Your task to perform on an android device: Add beats solo 3 to the cart on walmart.com, then select checkout. Image 0: 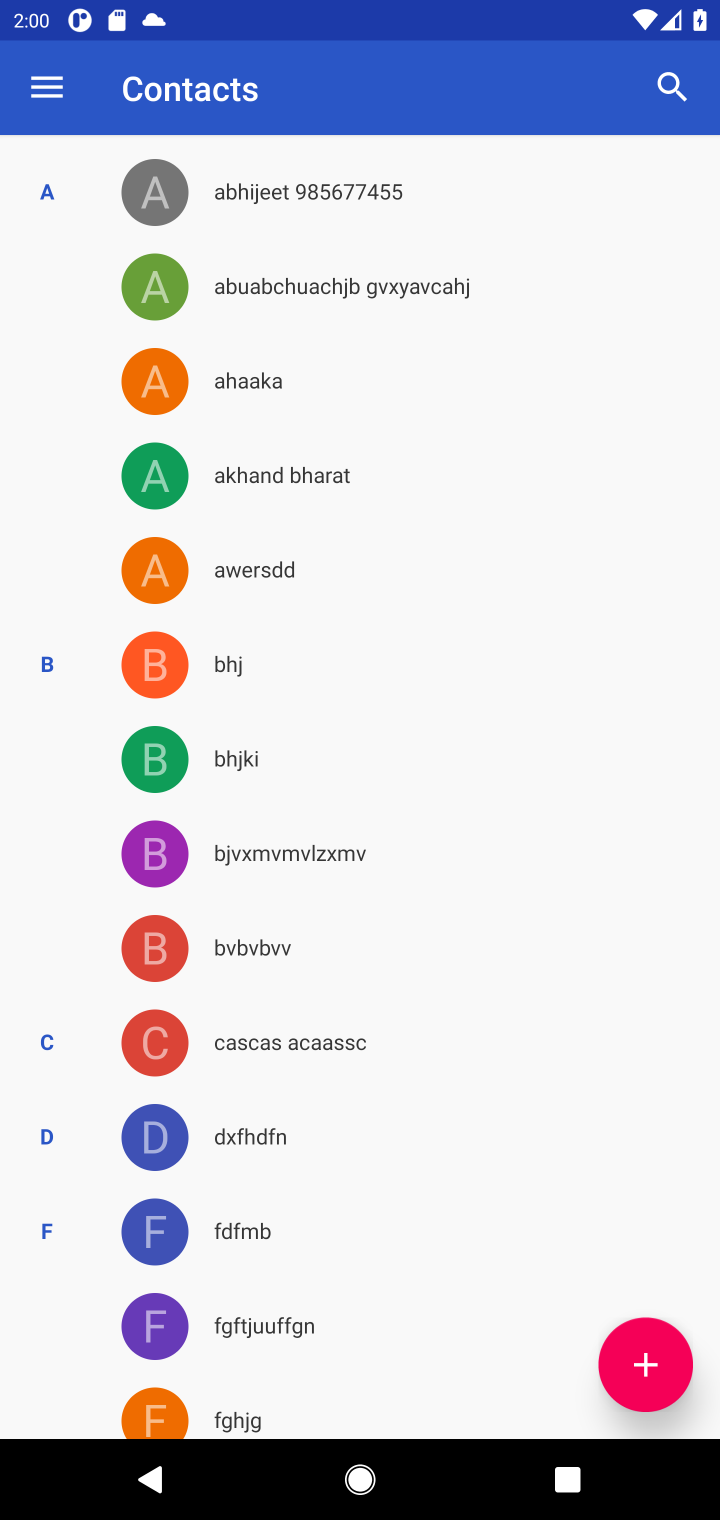
Step 0: press home button
Your task to perform on an android device: Add beats solo 3 to the cart on walmart.com, then select checkout. Image 1: 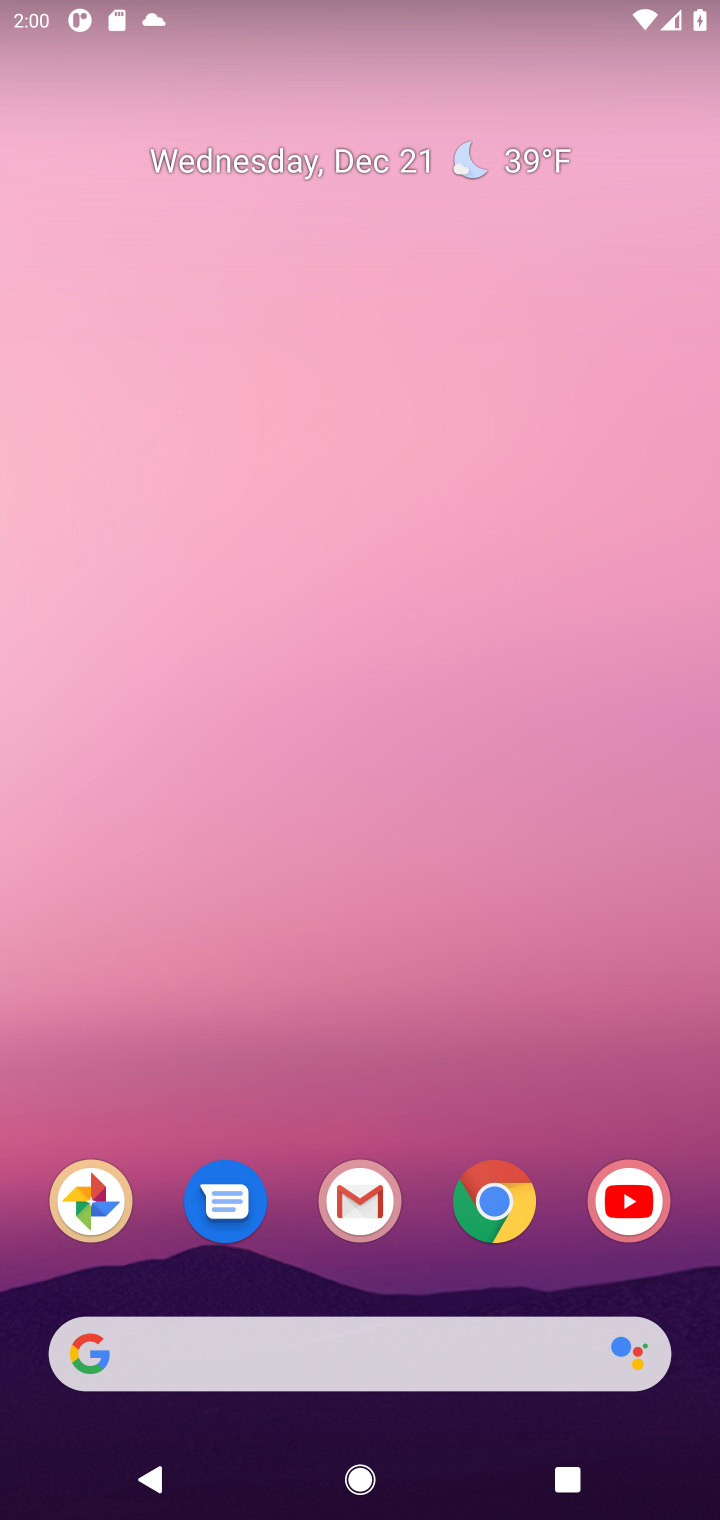
Step 1: click (492, 1213)
Your task to perform on an android device: Add beats solo 3 to the cart on walmart.com, then select checkout. Image 2: 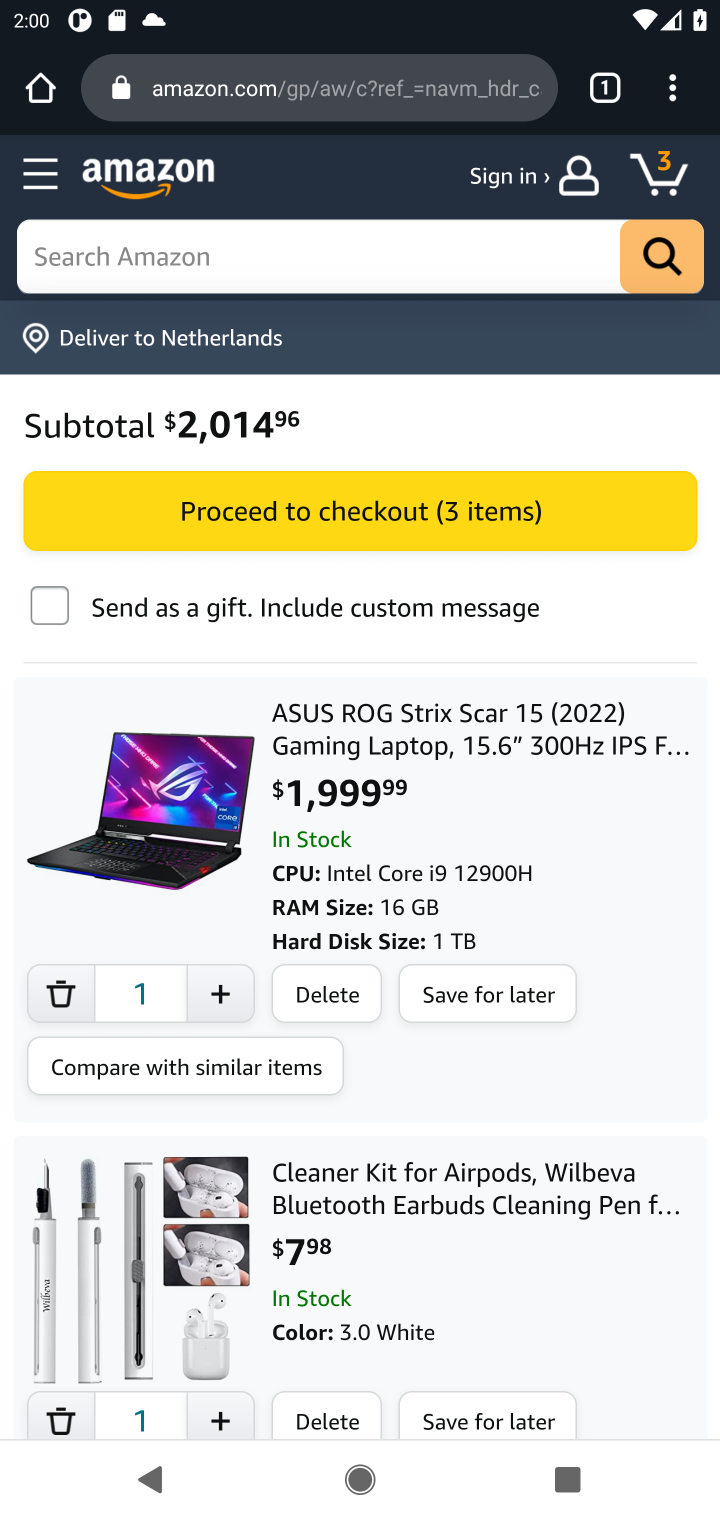
Step 2: click (270, 97)
Your task to perform on an android device: Add beats solo 3 to the cart on walmart.com, then select checkout. Image 3: 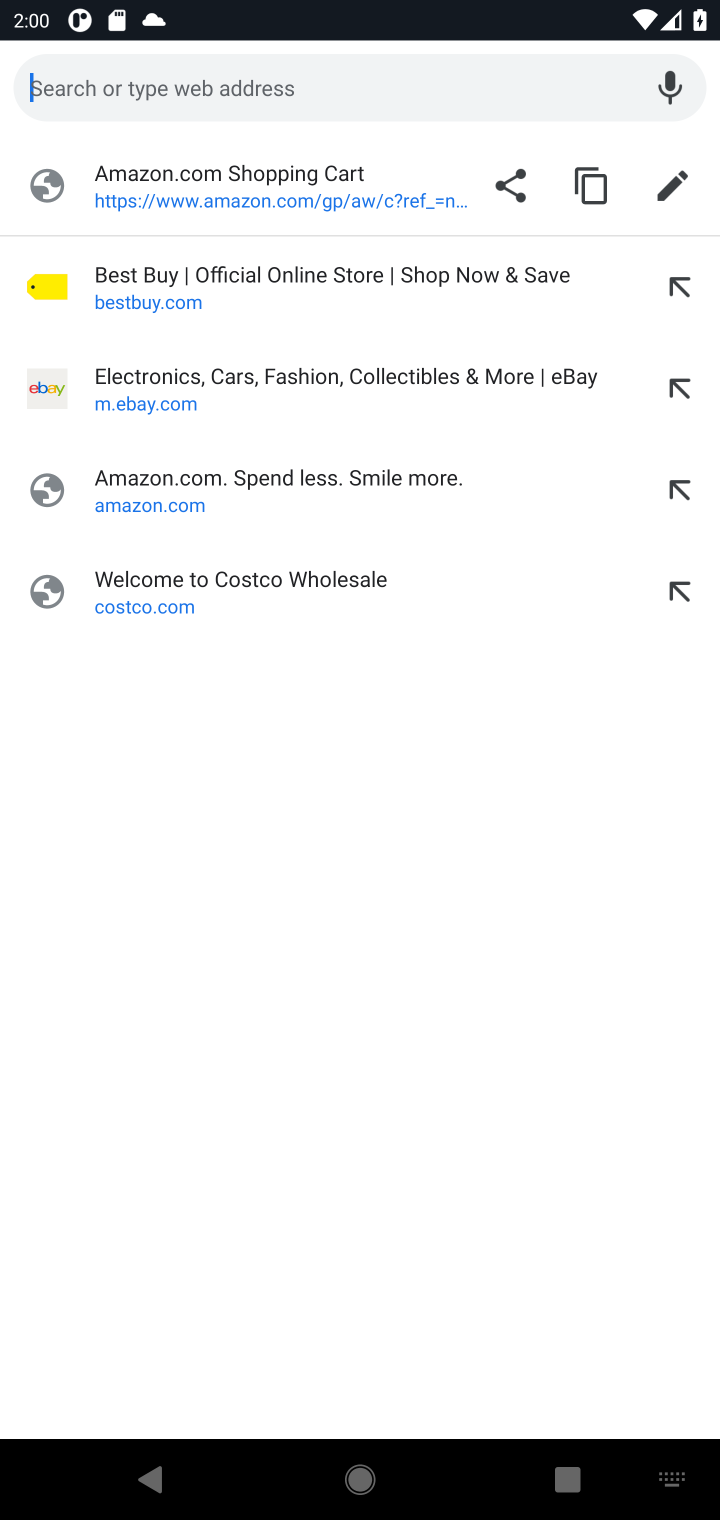
Step 3: type "walmart.com"
Your task to perform on an android device: Add beats solo 3 to the cart on walmart.com, then select checkout. Image 4: 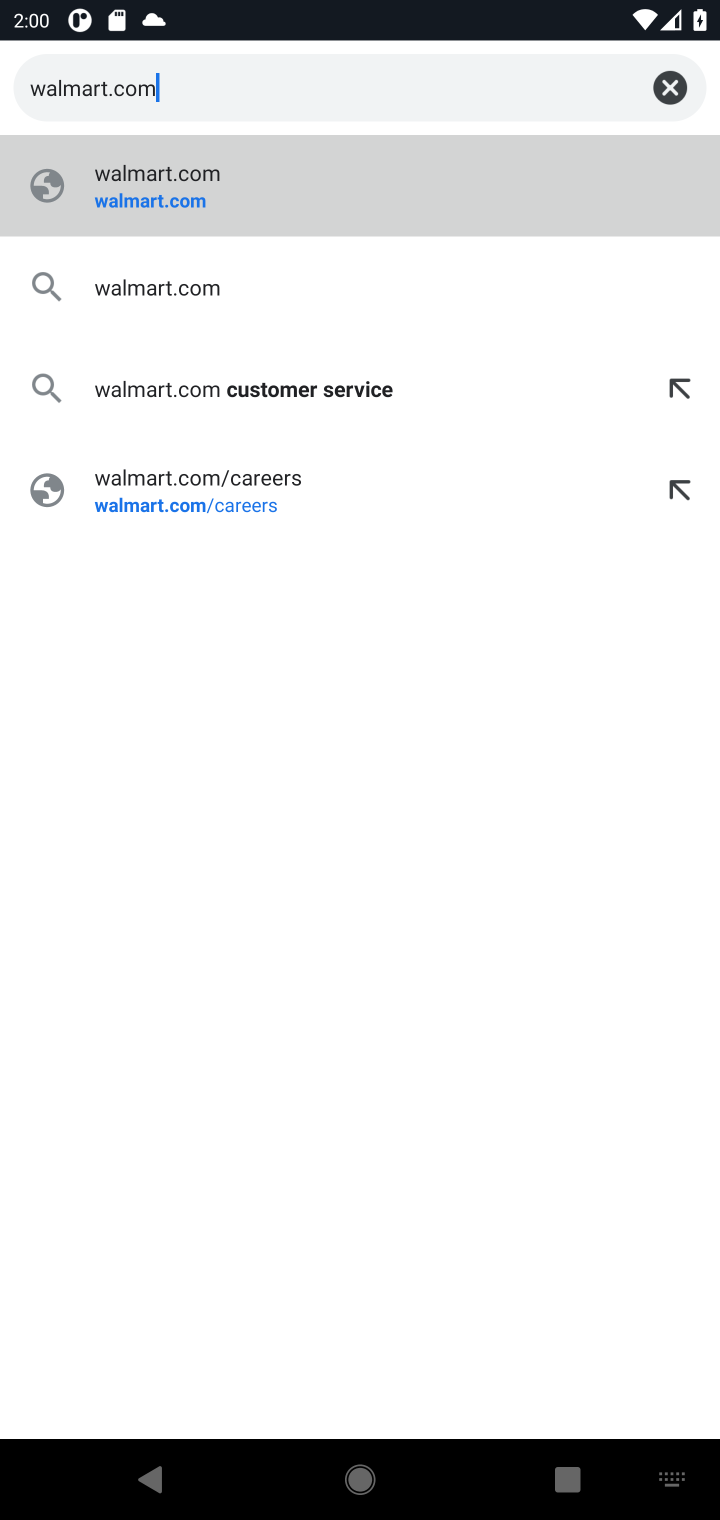
Step 4: click (145, 292)
Your task to perform on an android device: Add beats solo 3 to the cart on walmart.com, then select checkout. Image 5: 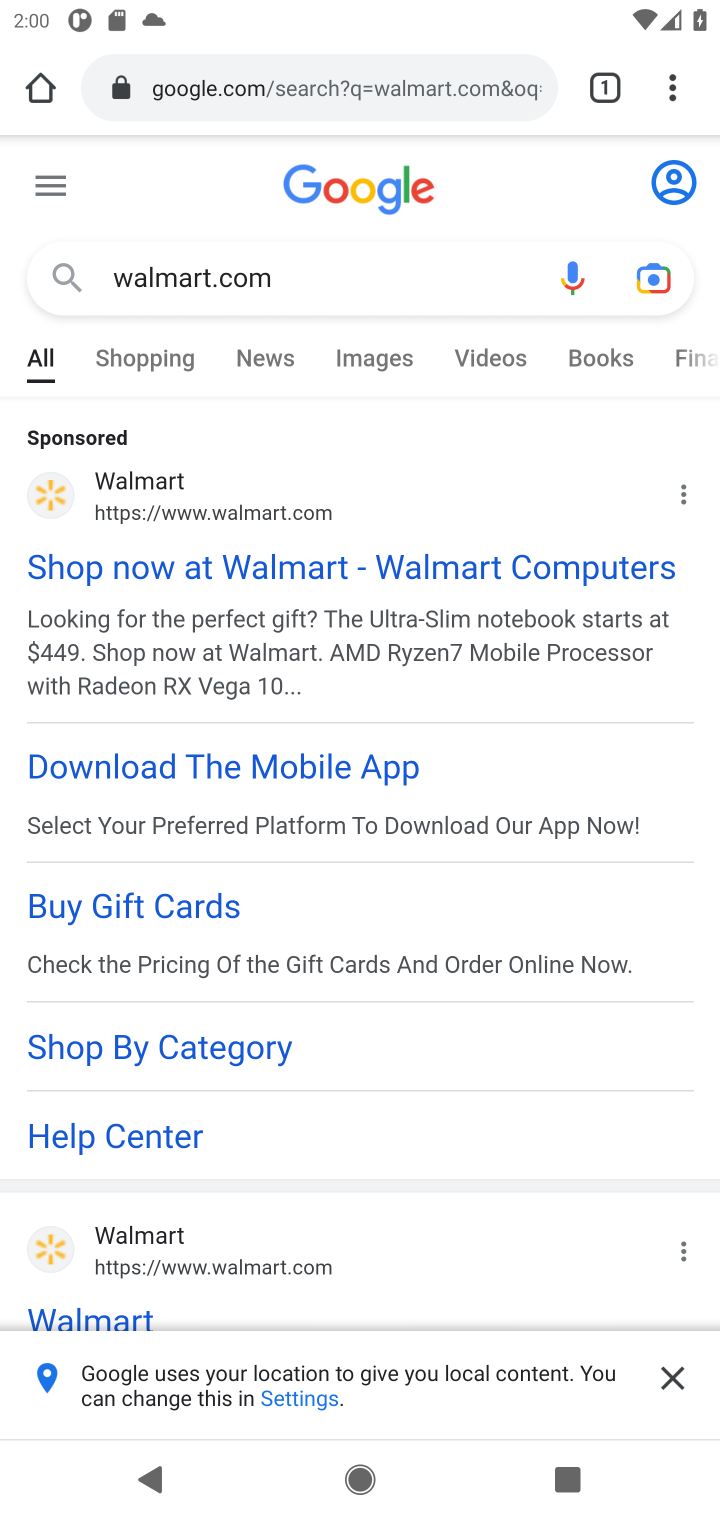
Step 5: drag from (237, 975) to (256, 468)
Your task to perform on an android device: Add beats solo 3 to the cart on walmart.com, then select checkout. Image 6: 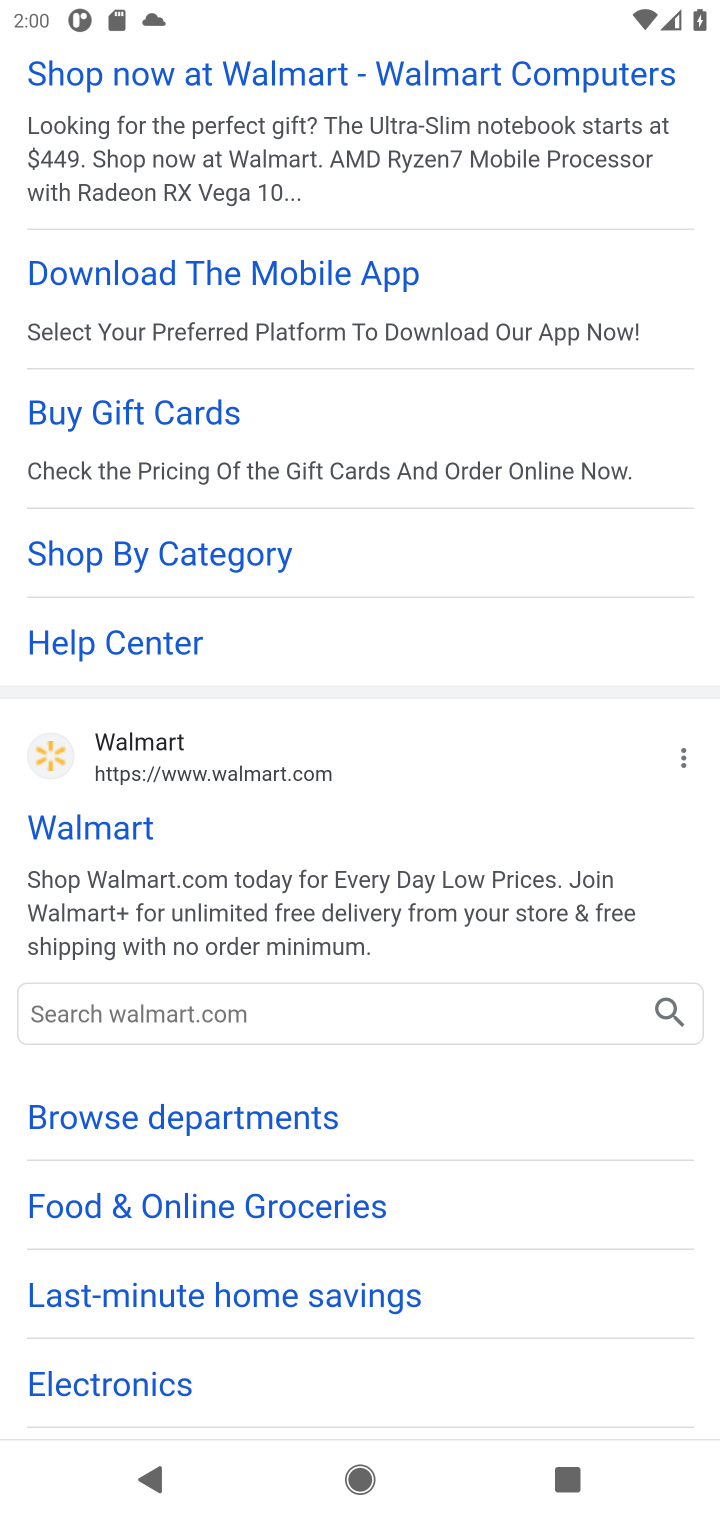
Step 6: click (138, 778)
Your task to perform on an android device: Add beats solo 3 to the cart on walmart.com, then select checkout. Image 7: 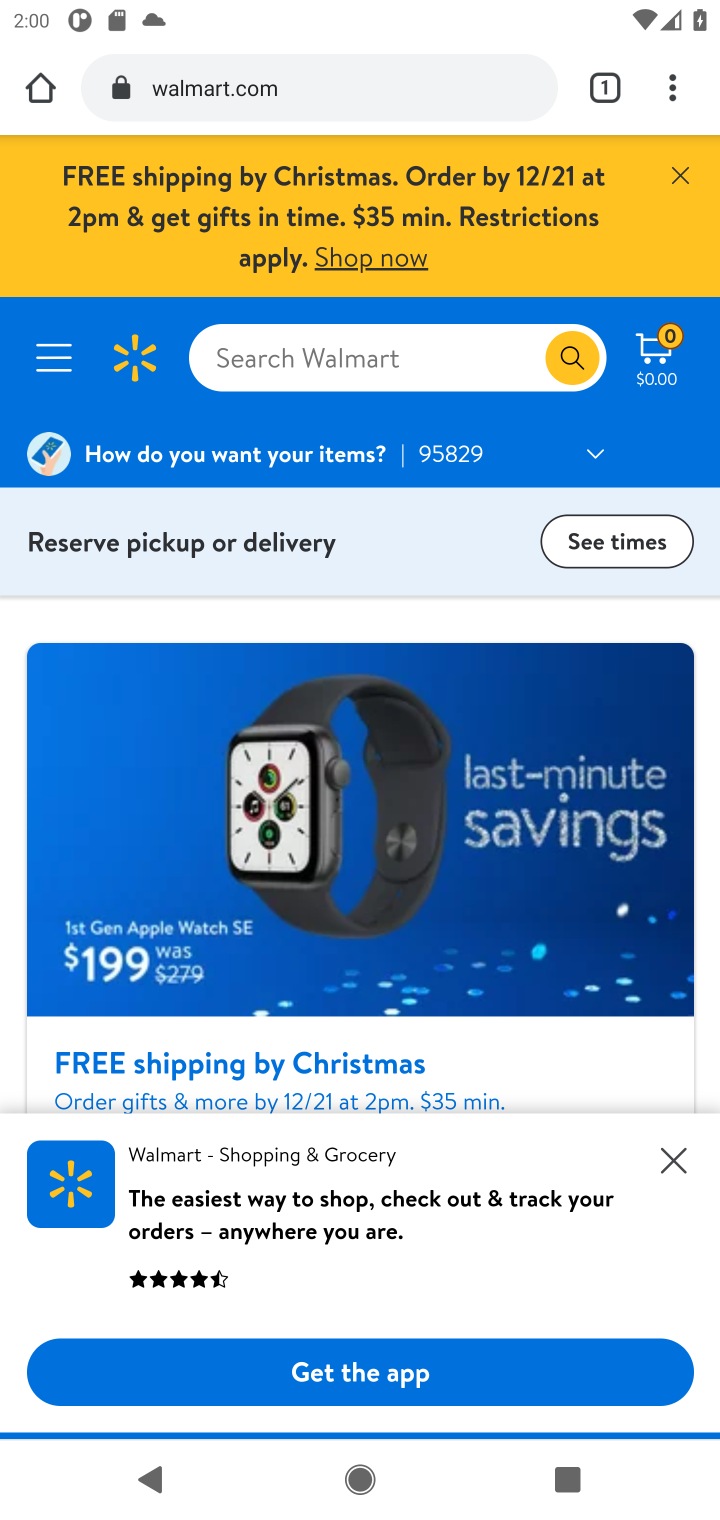
Step 7: click (328, 359)
Your task to perform on an android device: Add beats solo 3 to the cart on walmart.com, then select checkout. Image 8: 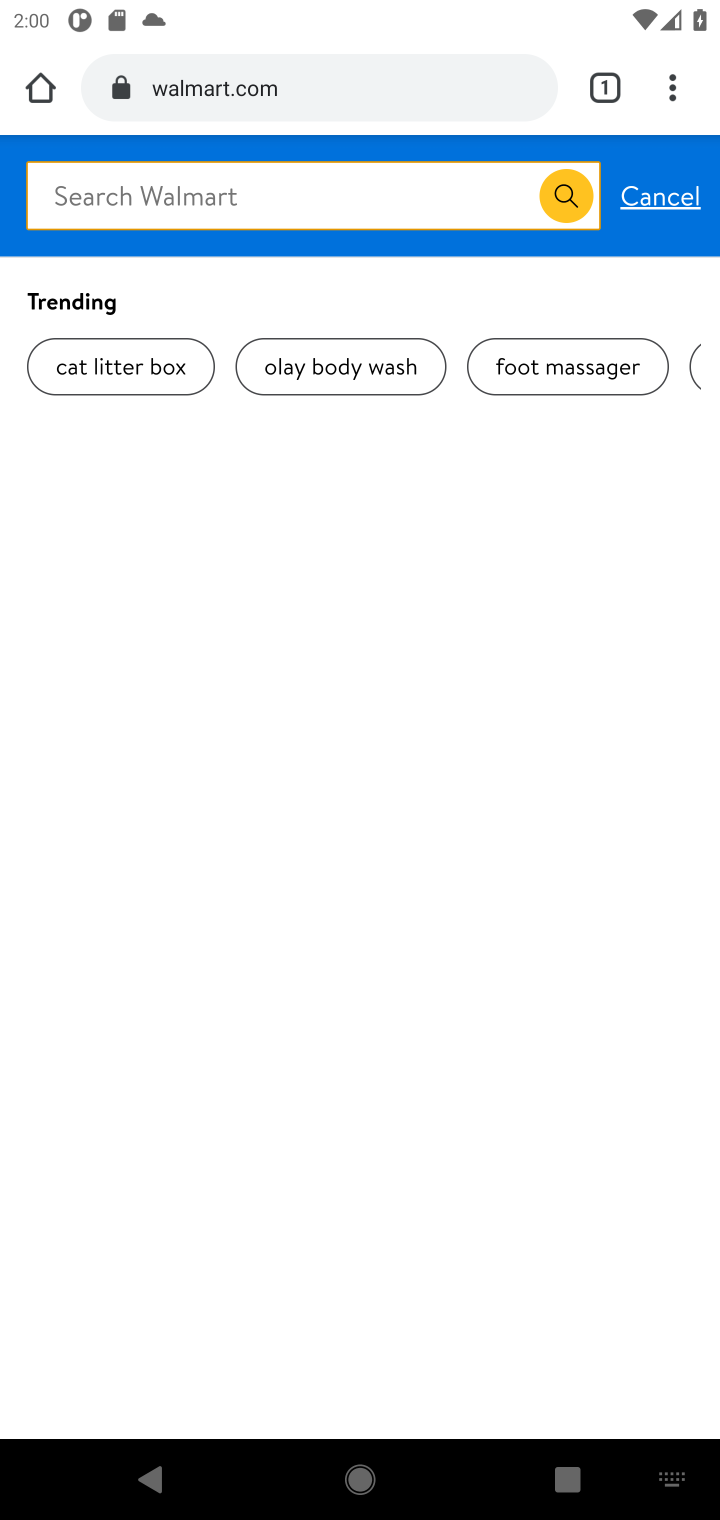
Step 8: type "beats solo 3 "
Your task to perform on an android device: Add beats solo 3 to the cart on walmart.com, then select checkout. Image 9: 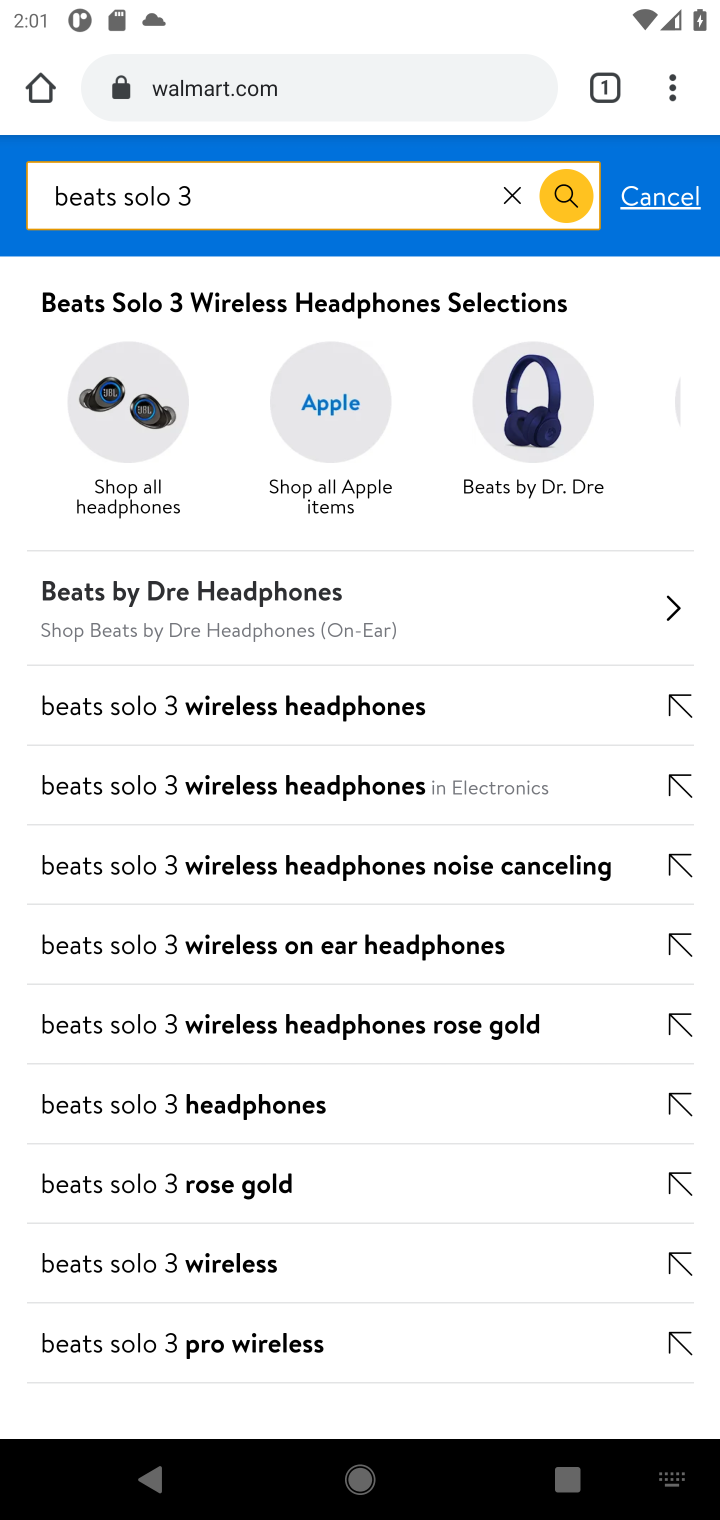
Step 9: click (574, 202)
Your task to perform on an android device: Add beats solo 3 to the cart on walmart.com, then select checkout. Image 10: 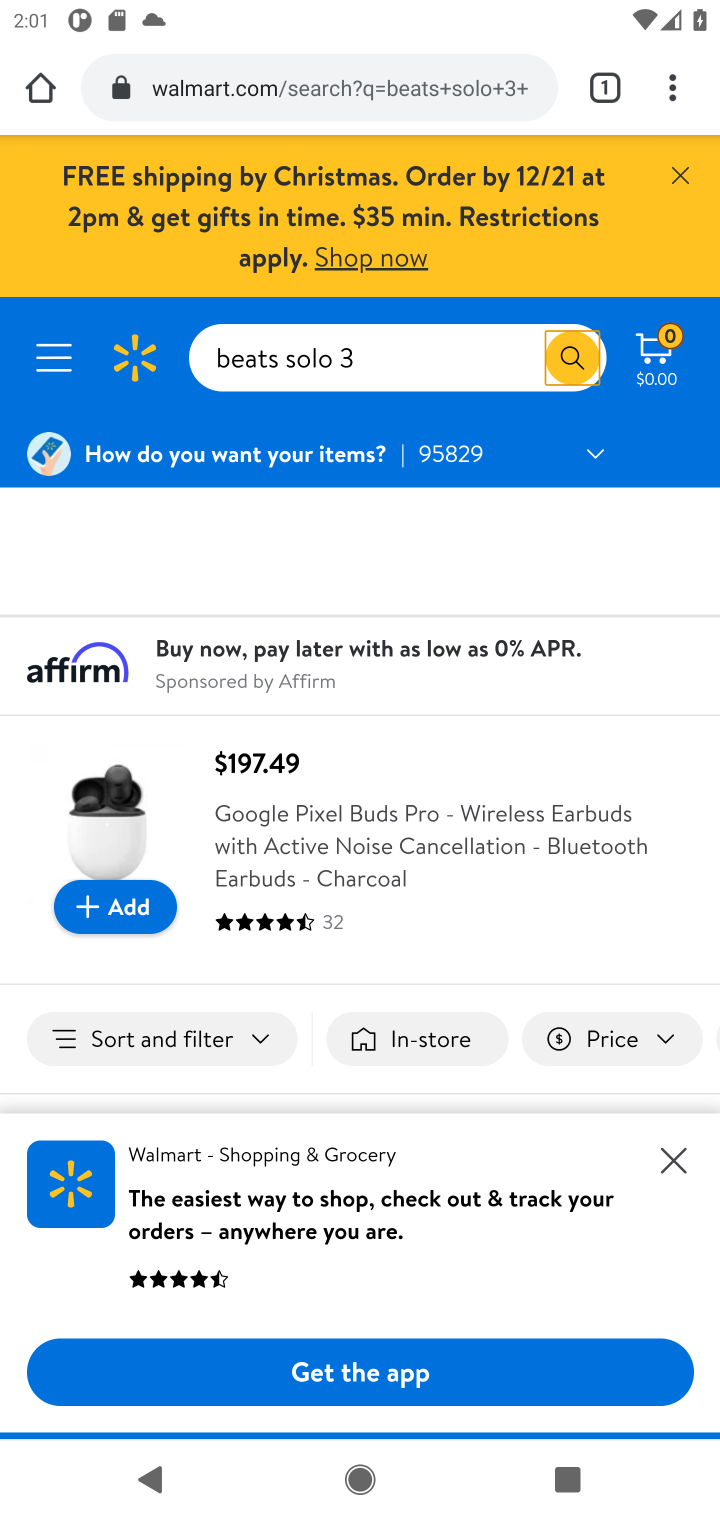
Step 10: click (673, 1165)
Your task to perform on an android device: Add beats solo 3 to the cart on walmart.com, then select checkout. Image 11: 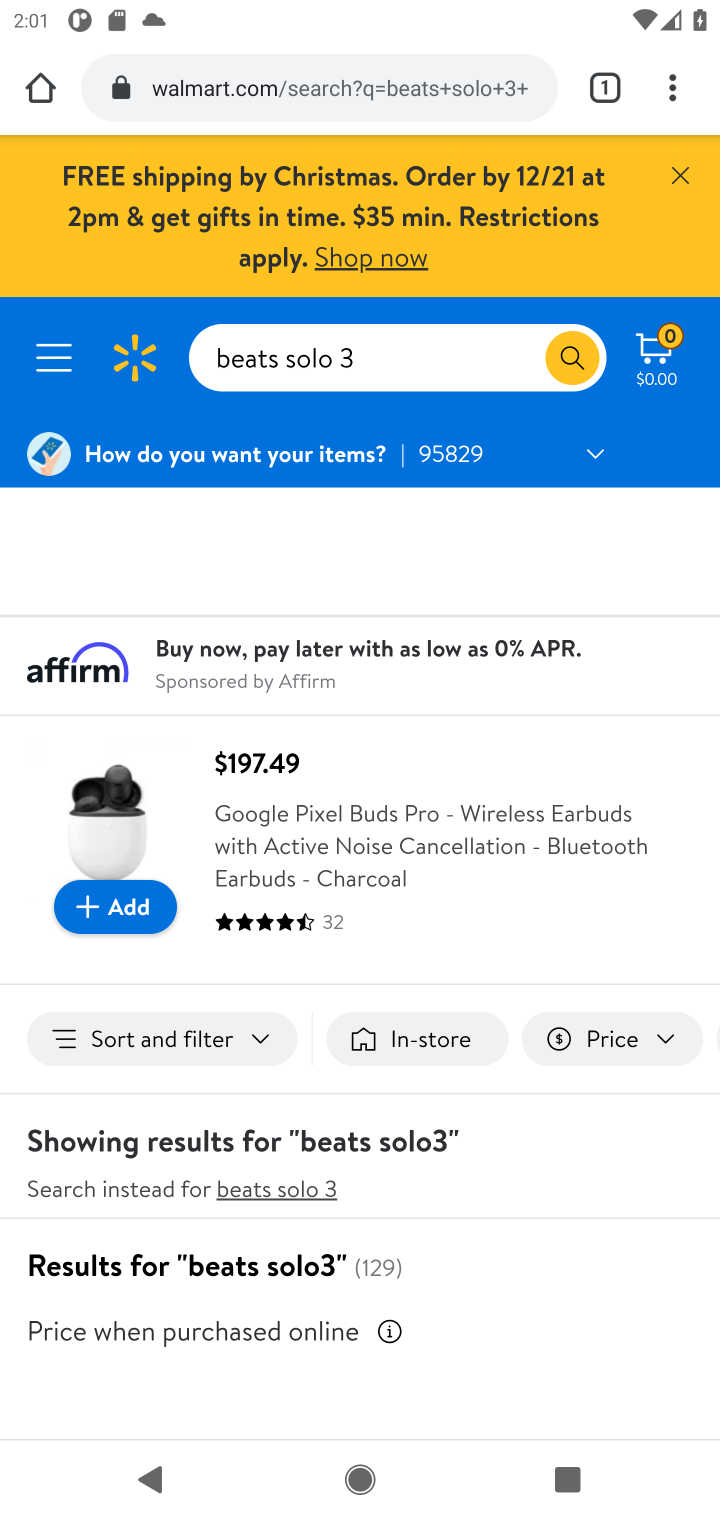
Step 11: drag from (222, 911) to (206, 655)
Your task to perform on an android device: Add beats solo 3 to the cart on walmart.com, then select checkout. Image 12: 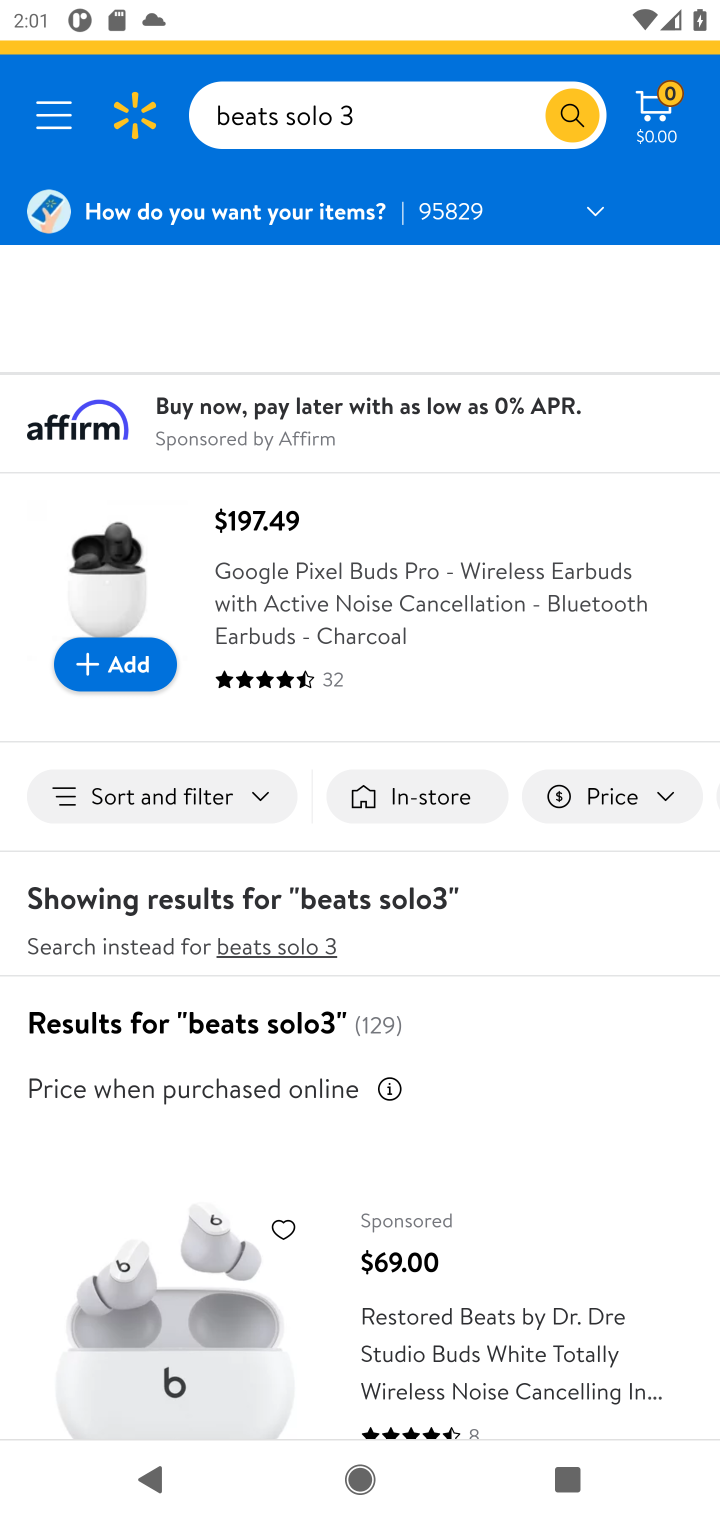
Step 12: drag from (172, 1069) to (195, 576)
Your task to perform on an android device: Add beats solo 3 to the cart on walmart.com, then select checkout. Image 13: 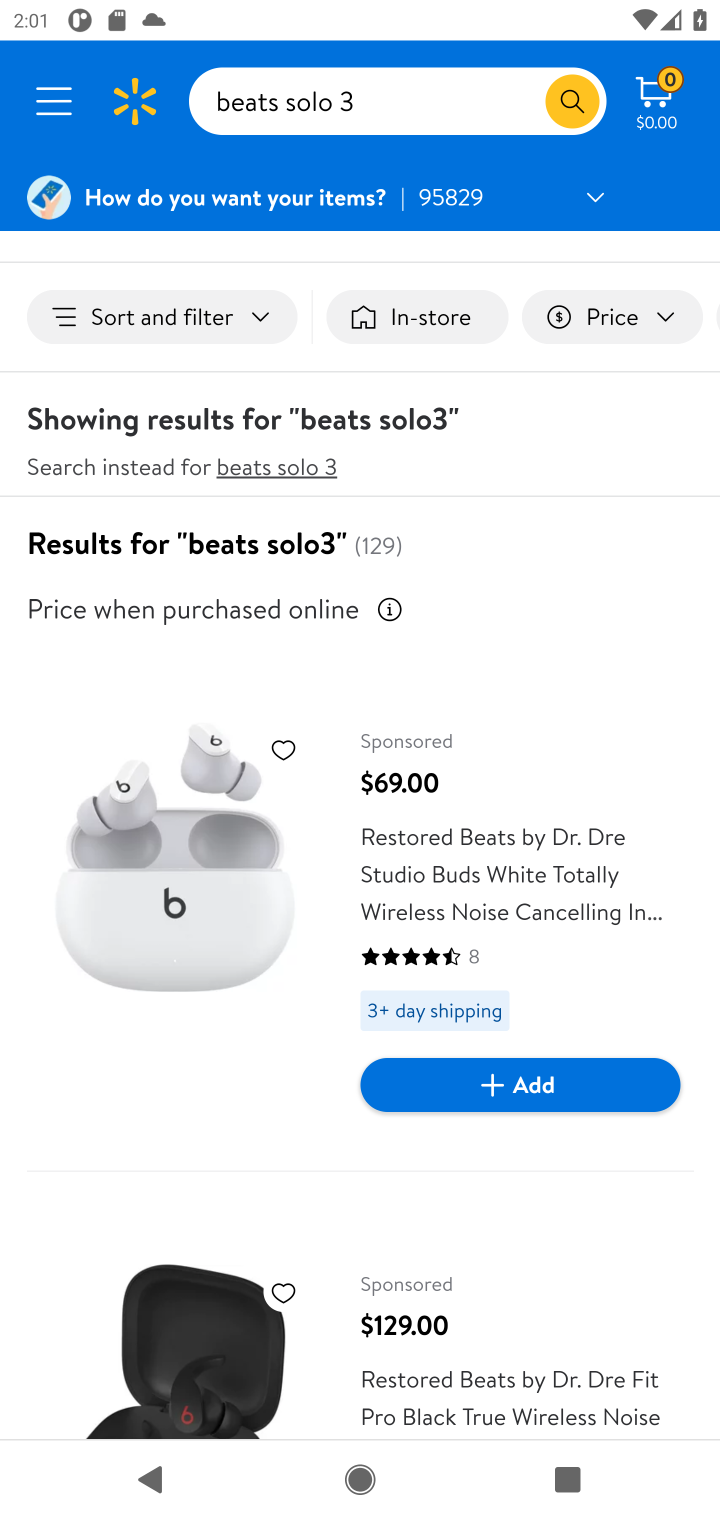
Step 13: drag from (199, 996) to (209, 574)
Your task to perform on an android device: Add beats solo 3 to the cart on walmart.com, then select checkout. Image 14: 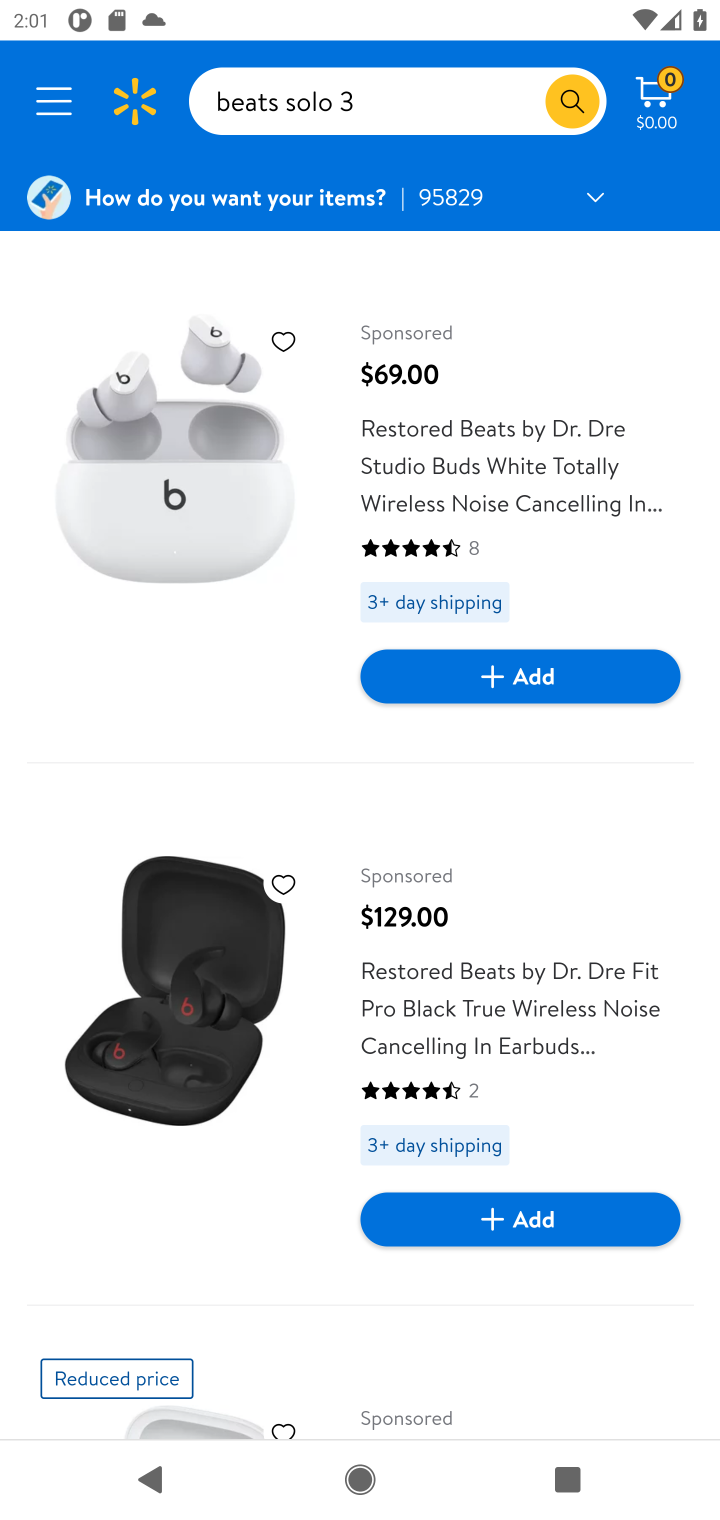
Step 14: drag from (185, 1087) to (207, 683)
Your task to perform on an android device: Add beats solo 3 to the cart on walmart.com, then select checkout. Image 15: 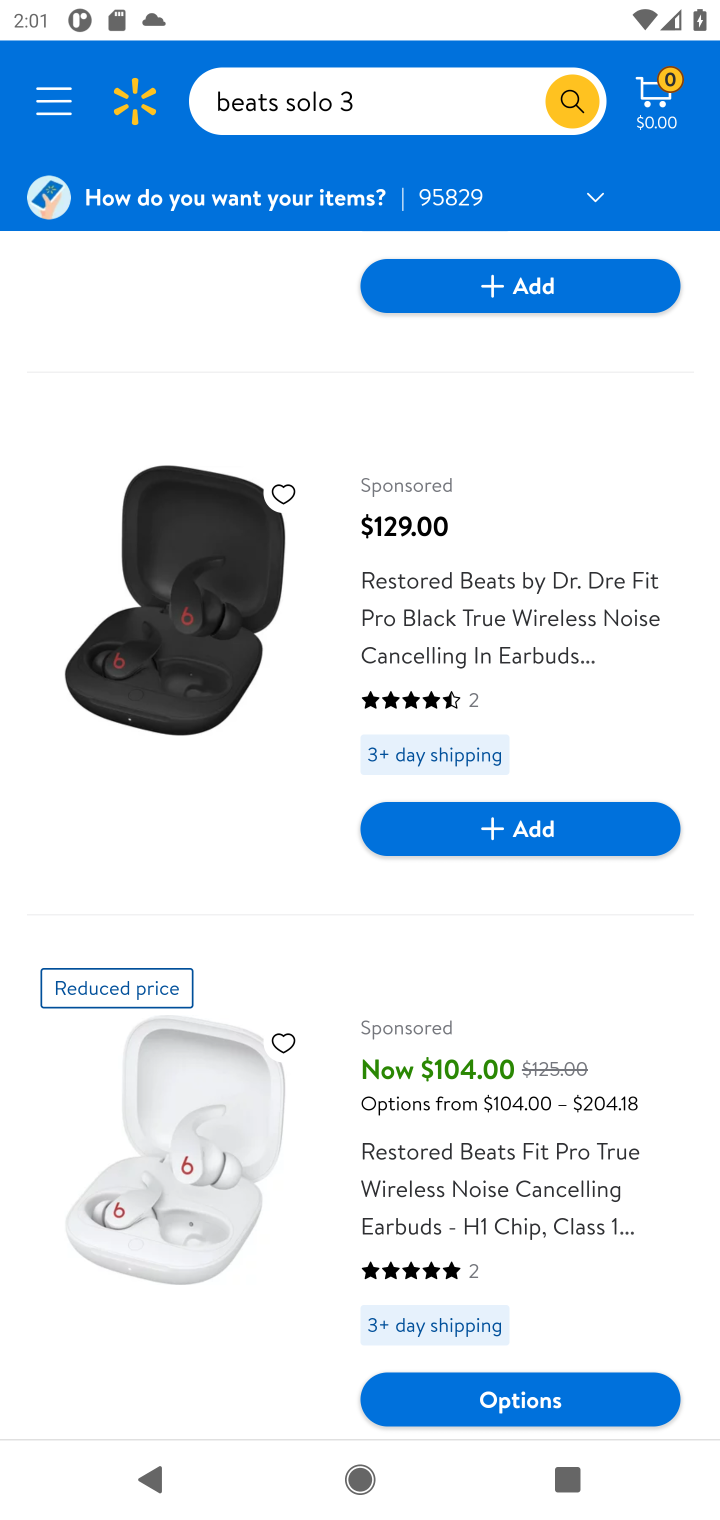
Step 15: drag from (169, 1201) to (203, 740)
Your task to perform on an android device: Add beats solo 3 to the cart on walmart.com, then select checkout. Image 16: 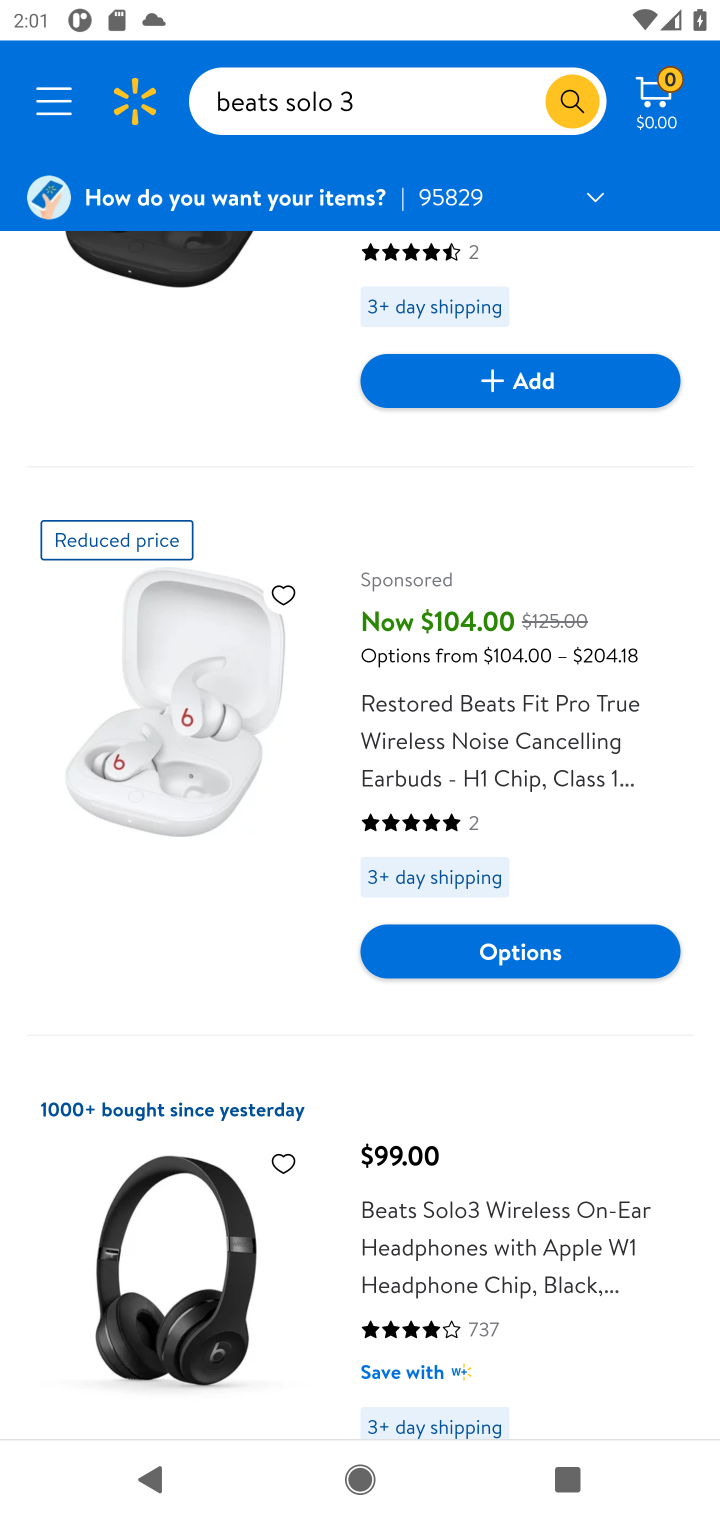
Step 16: drag from (209, 1208) to (252, 802)
Your task to perform on an android device: Add beats solo 3 to the cart on walmart.com, then select checkout. Image 17: 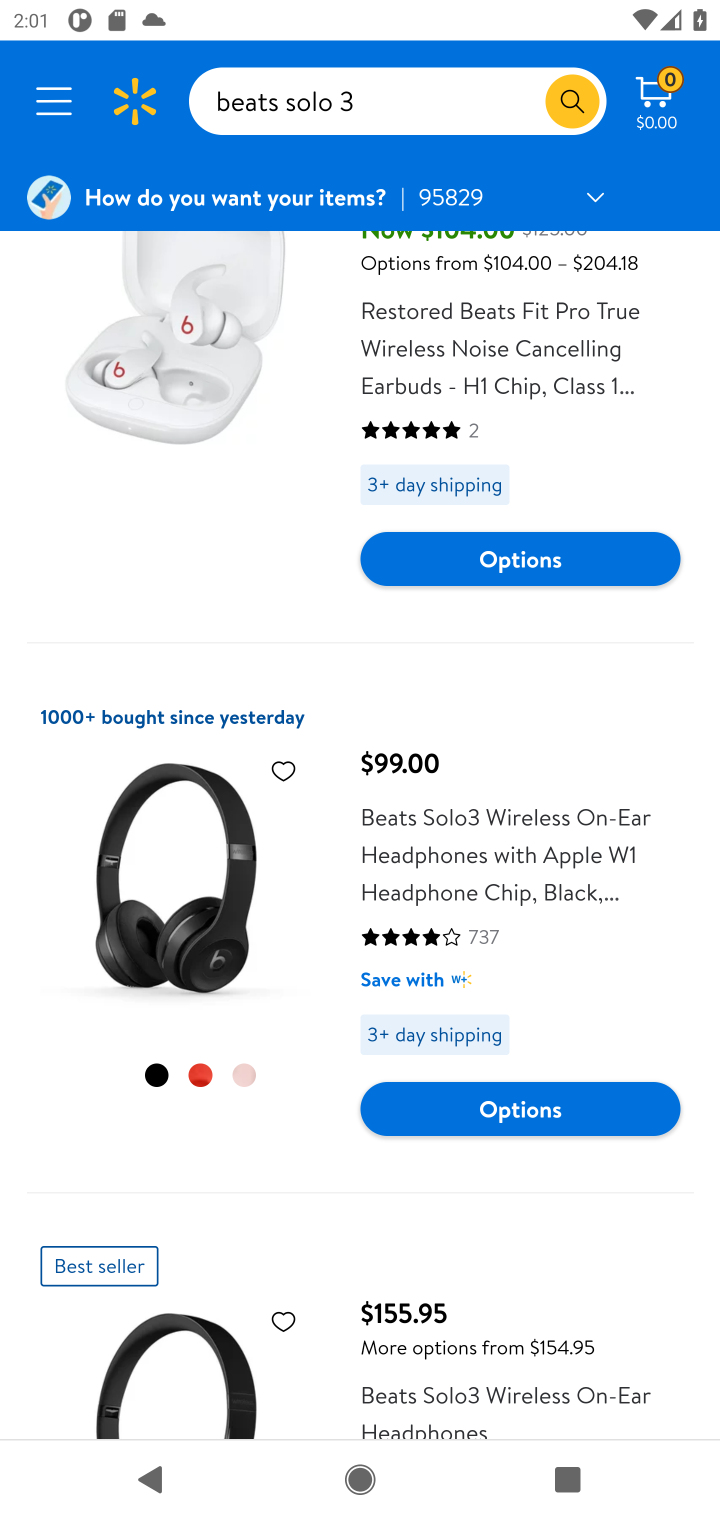
Step 17: click (501, 898)
Your task to perform on an android device: Add beats solo 3 to the cart on walmart.com, then select checkout. Image 18: 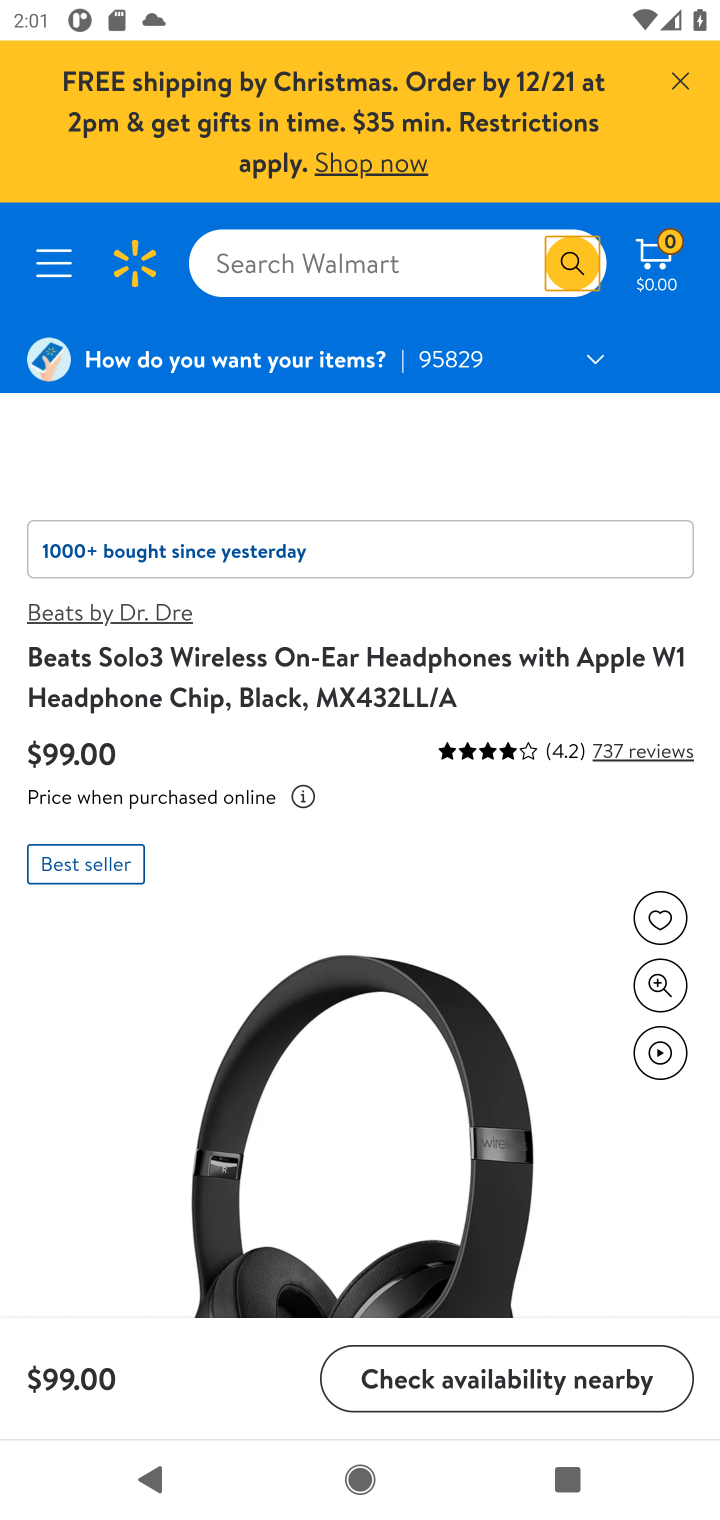
Step 18: drag from (372, 1053) to (378, 866)
Your task to perform on an android device: Add beats solo 3 to the cart on walmart.com, then select checkout. Image 19: 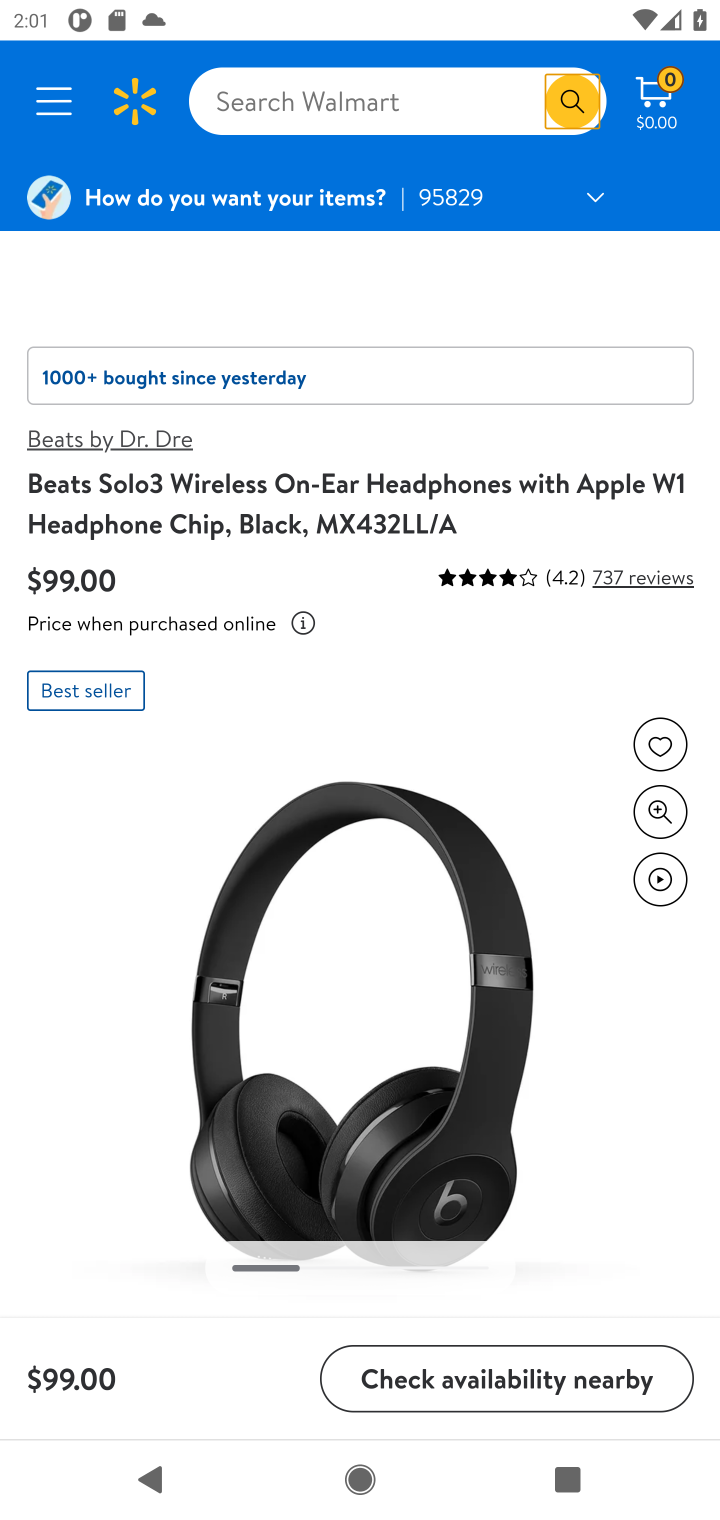
Step 19: drag from (544, 977) to (560, 788)
Your task to perform on an android device: Add beats solo 3 to the cart on walmart.com, then select checkout. Image 20: 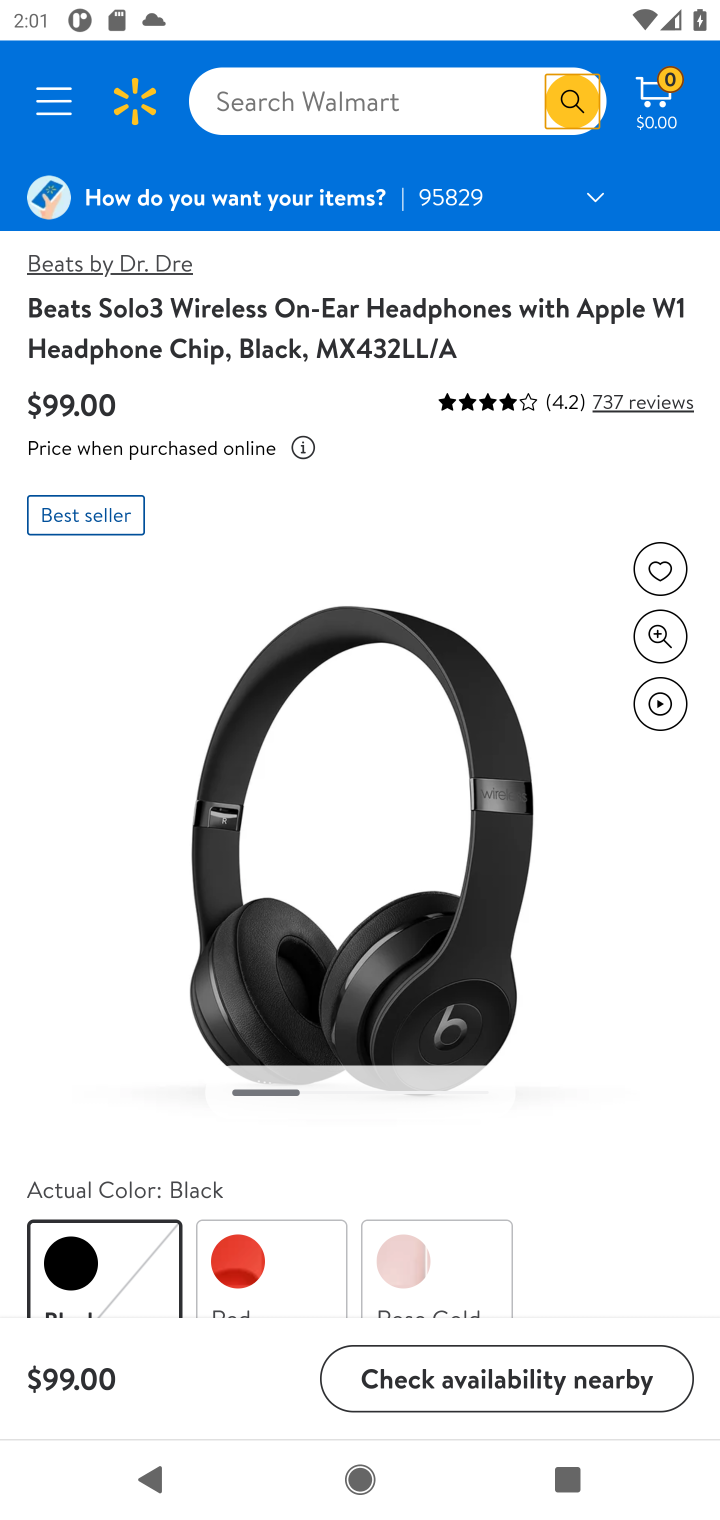
Step 20: press back button
Your task to perform on an android device: Add beats solo 3 to the cart on walmart.com, then select checkout. Image 21: 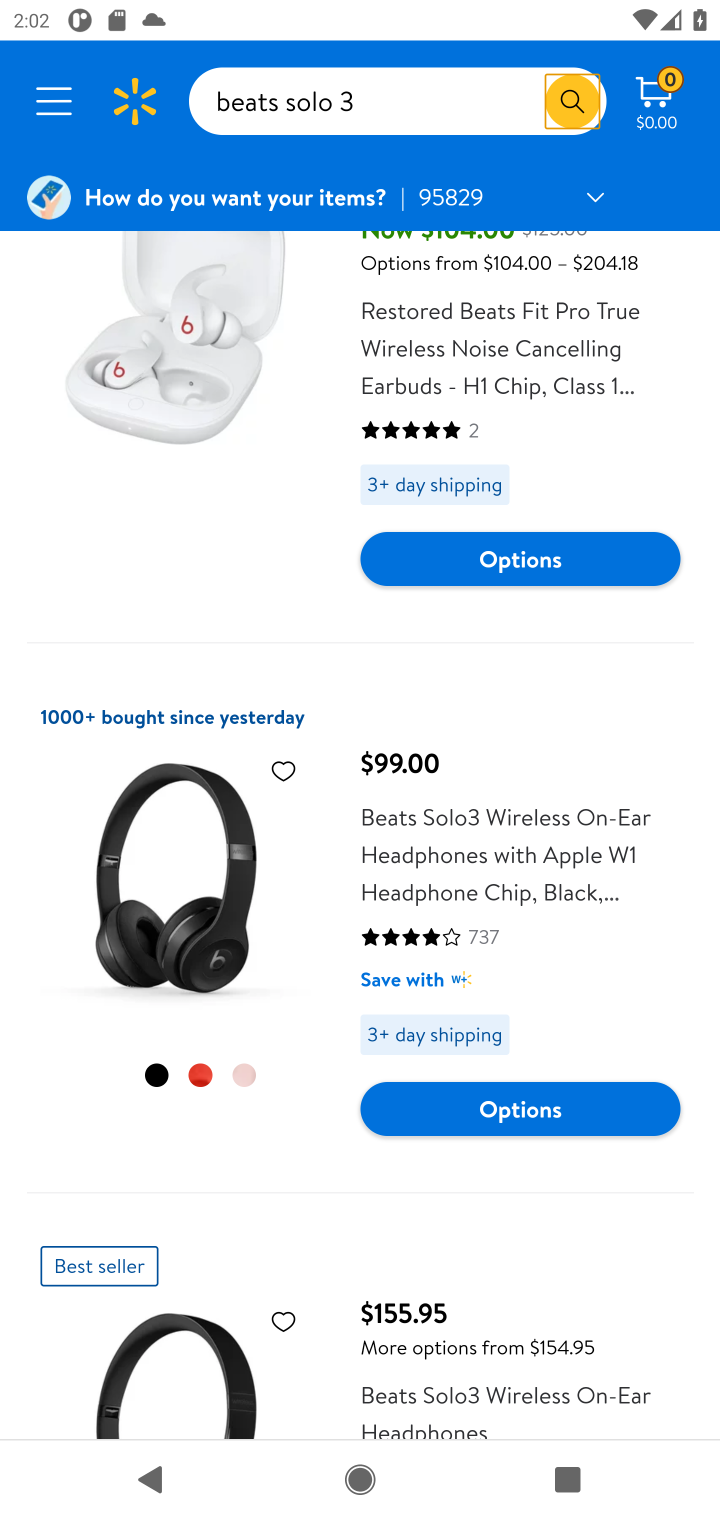
Step 21: drag from (205, 1052) to (247, 647)
Your task to perform on an android device: Add beats solo 3 to the cart on walmart.com, then select checkout. Image 22: 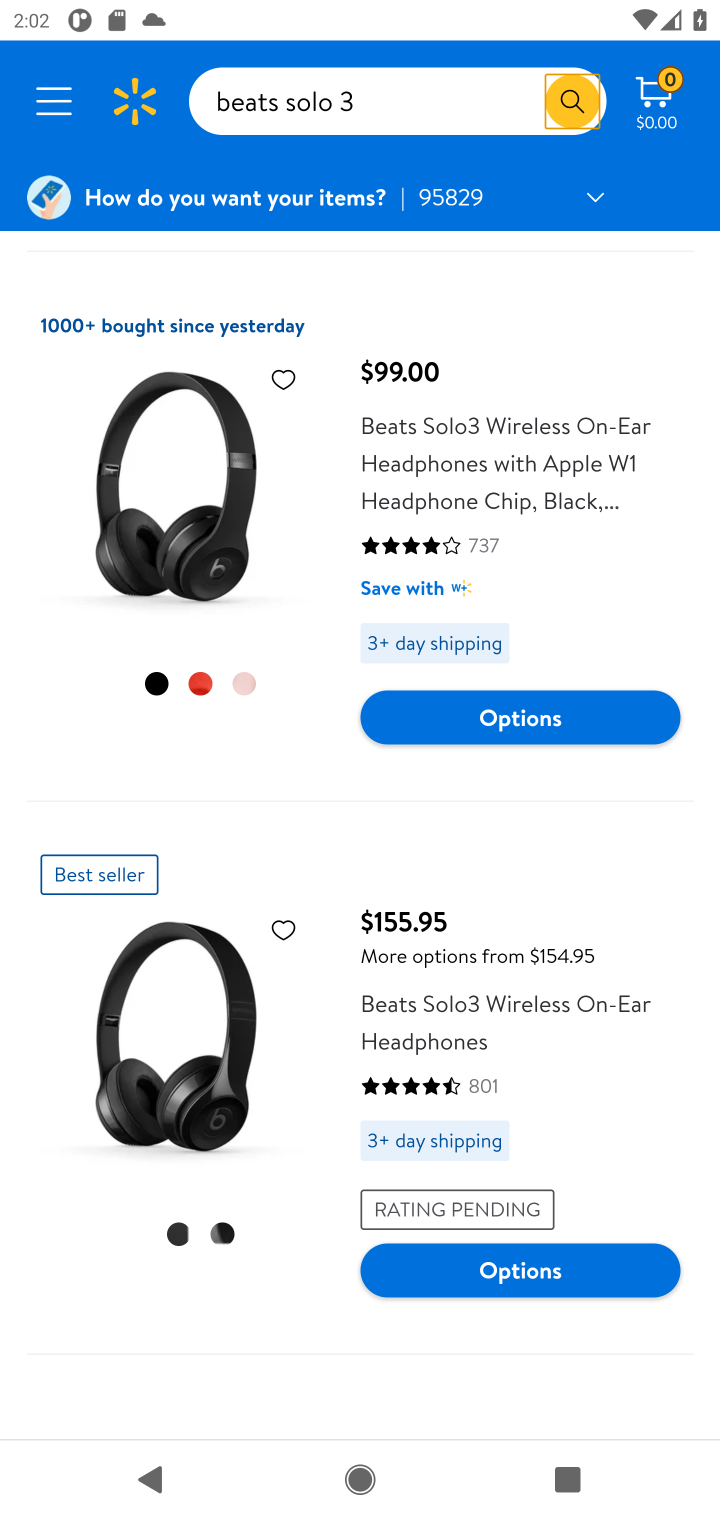
Step 22: click (456, 1019)
Your task to perform on an android device: Add beats solo 3 to the cart on walmart.com, then select checkout. Image 23: 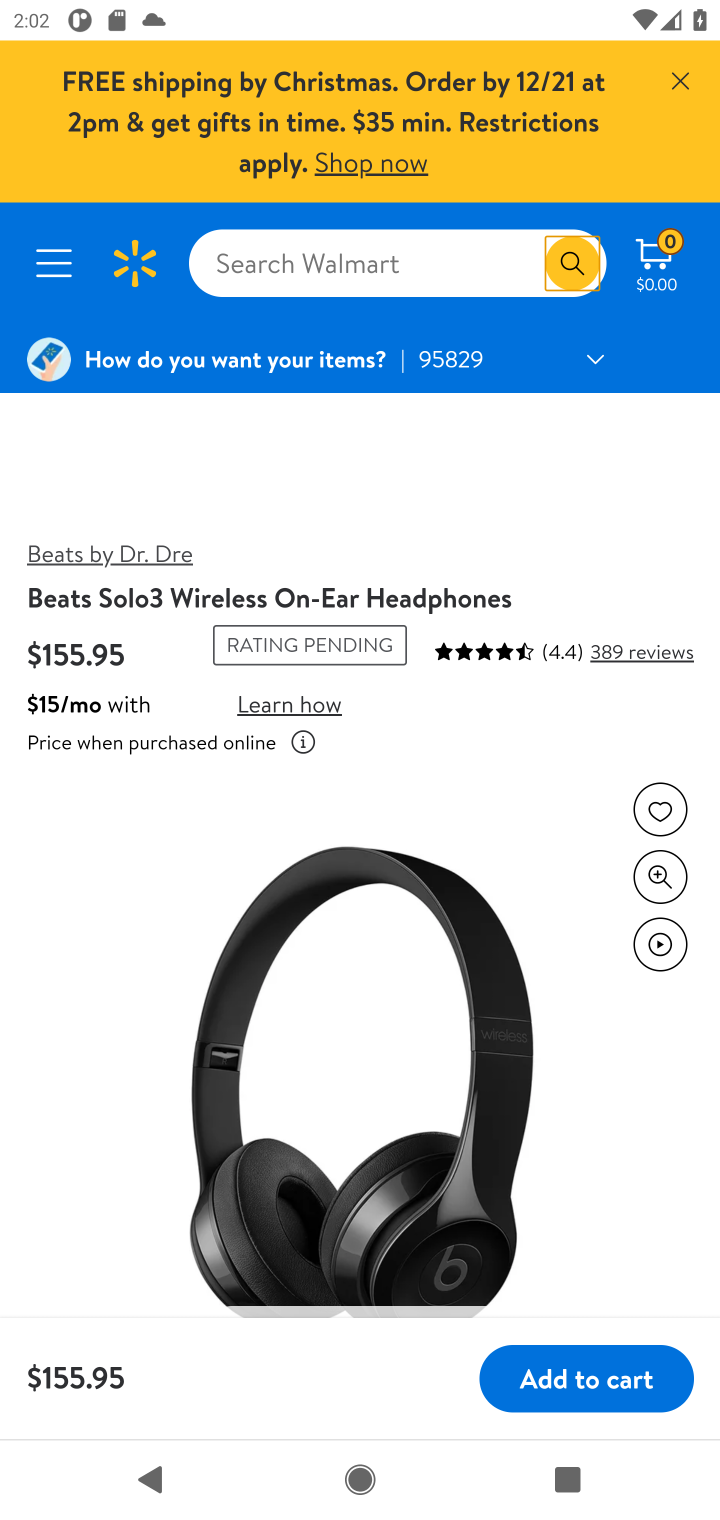
Step 23: drag from (347, 1180) to (390, 829)
Your task to perform on an android device: Add beats solo 3 to the cart on walmart.com, then select checkout. Image 24: 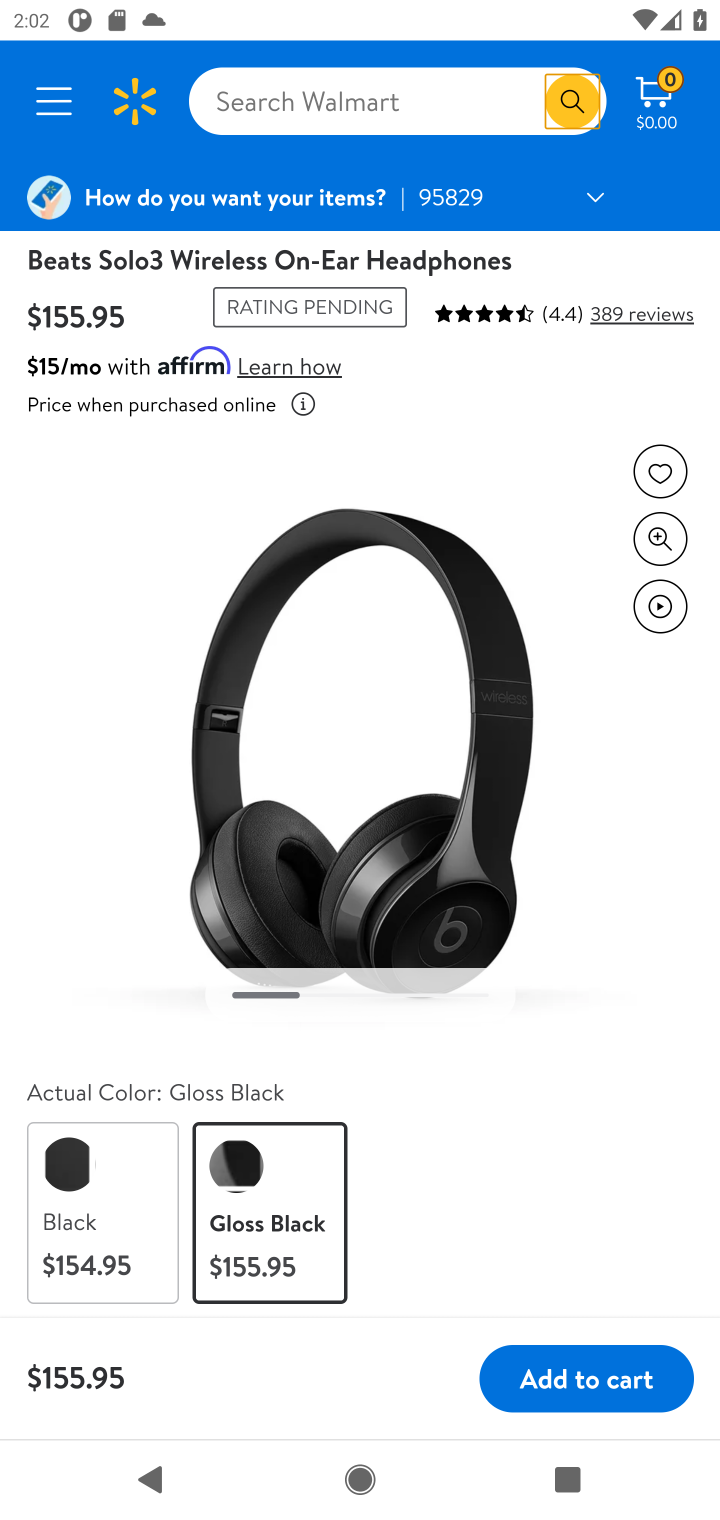
Step 24: click (520, 1378)
Your task to perform on an android device: Add beats solo 3 to the cart on walmart.com, then select checkout. Image 25: 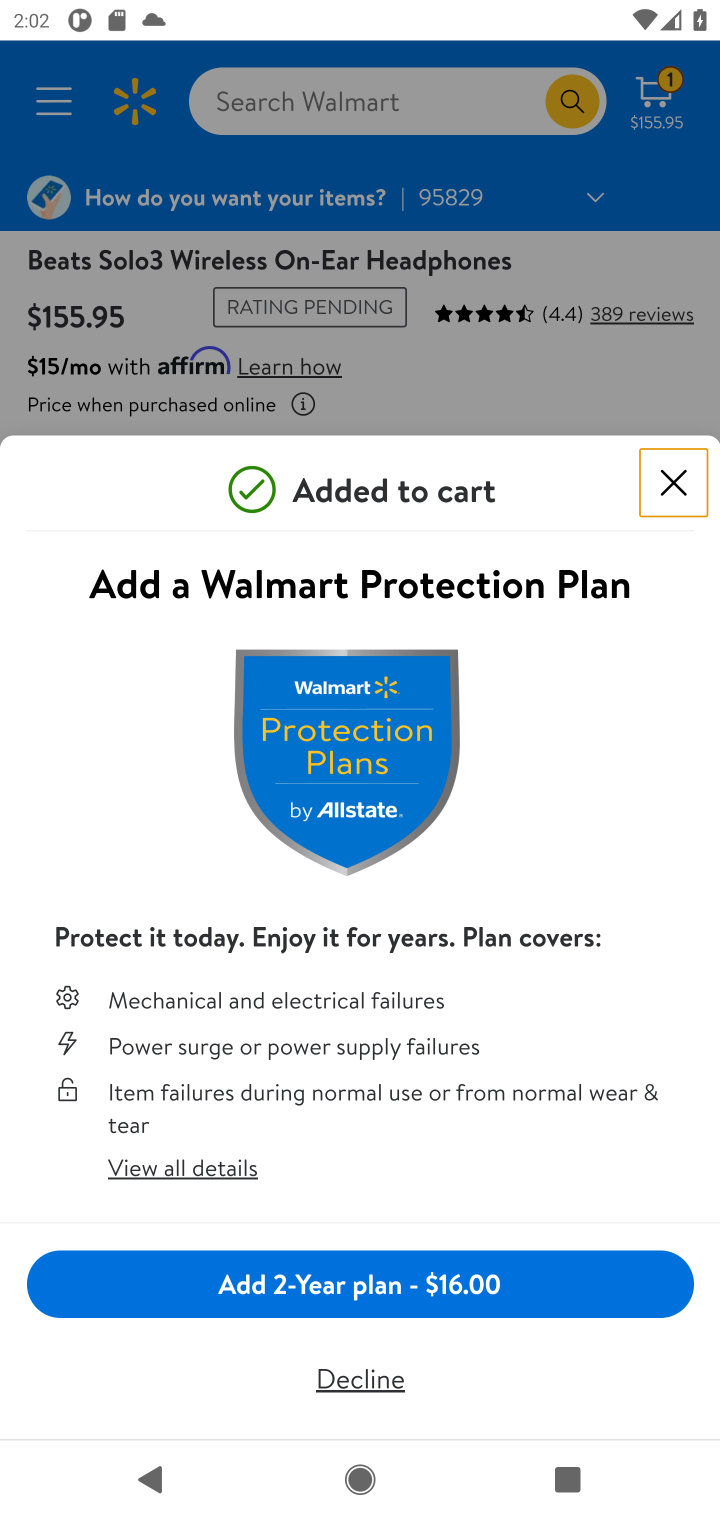
Step 25: click (678, 480)
Your task to perform on an android device: Add beats solo 3 to the cart on walmart.com, then select checkout. Image 26: 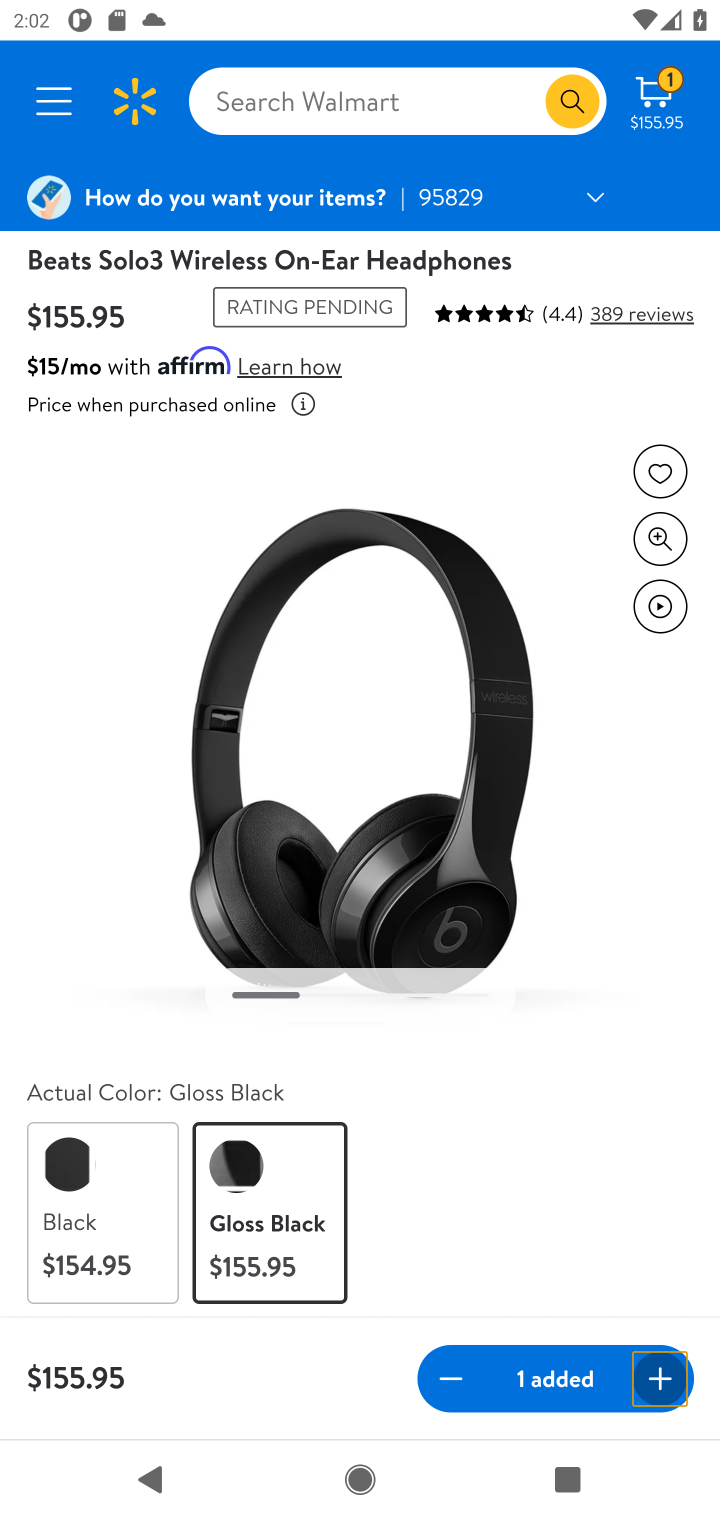
Step 26: click (661, 109)
Your task to perform on an android device: Add beats solo 3 to the cart on walmart.com, then select checkout. Image 27: 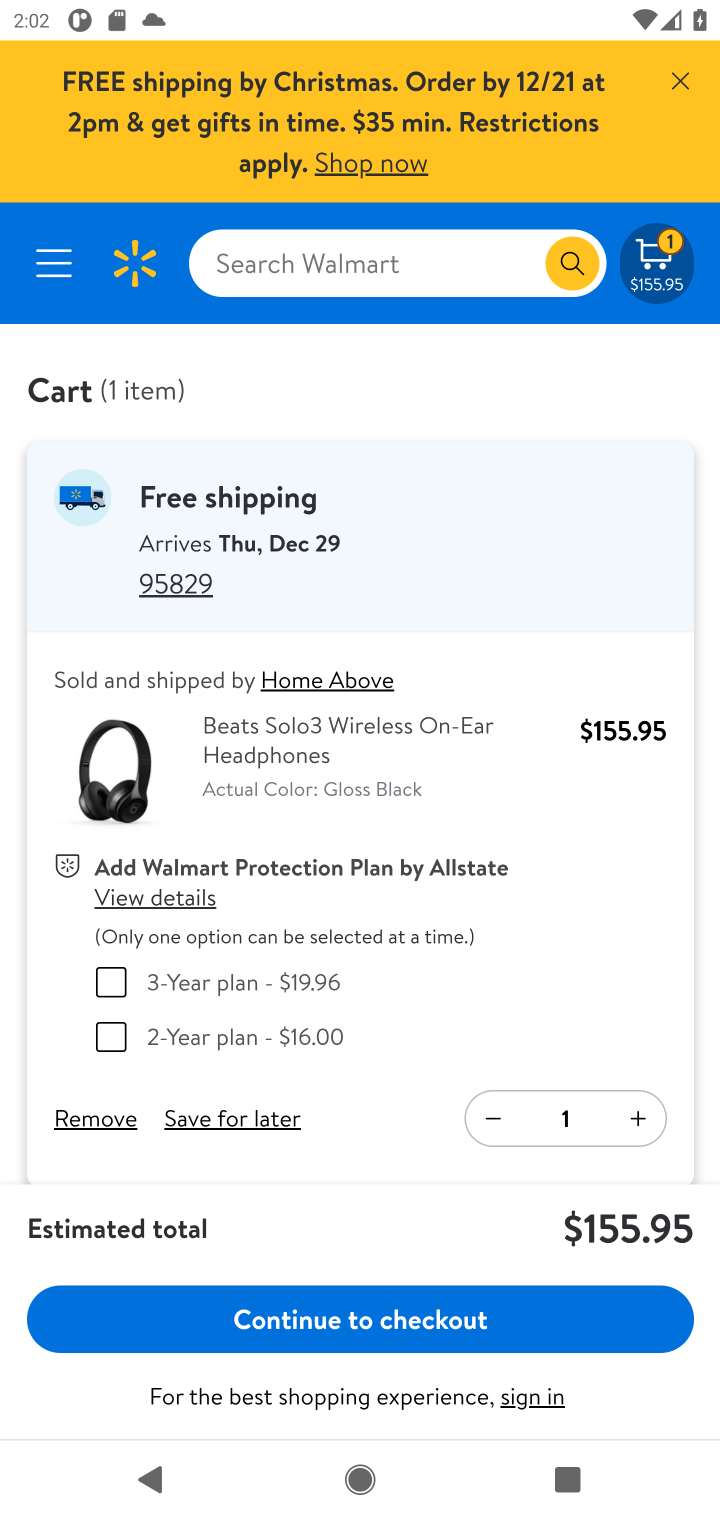
Step 27: click (321, 1313)
Your task to perform on an android device: Add beats solo 3 to the cart on walmart.com, then select checkout. Image 28: 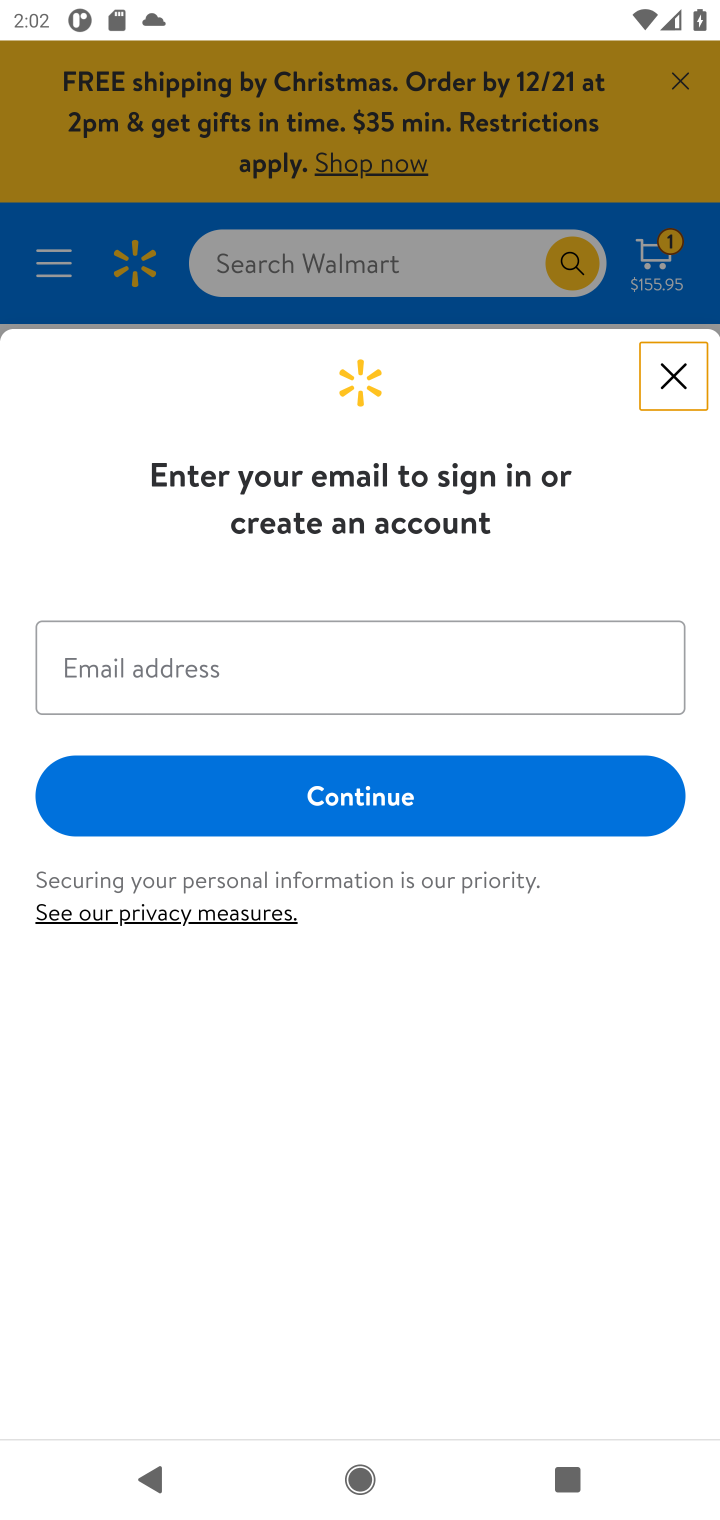
Step 28: task complete